Your task to perform on an android device: Go to CNN.com Image 0: 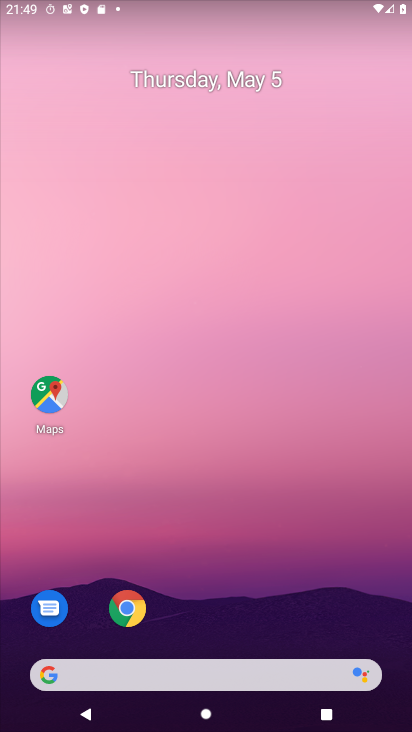
Step 0: drag from (170, 684) to (143, 89)
Your task to perform on an android device: Go to CNN.com Image 1: 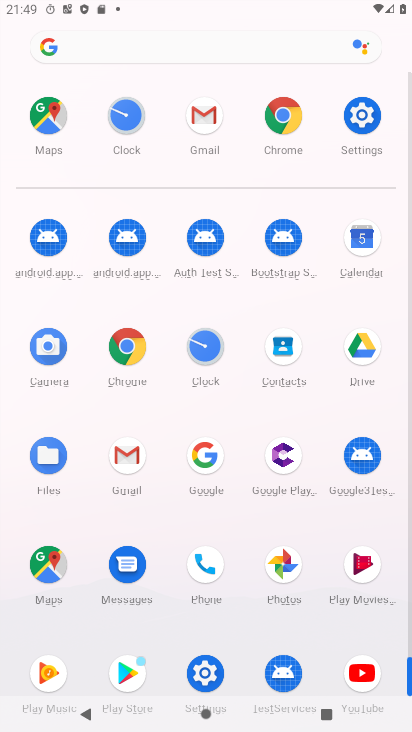
Step 1: click (136, 353)
Your task to perform on an android device: Go to CNN.com Image 2: 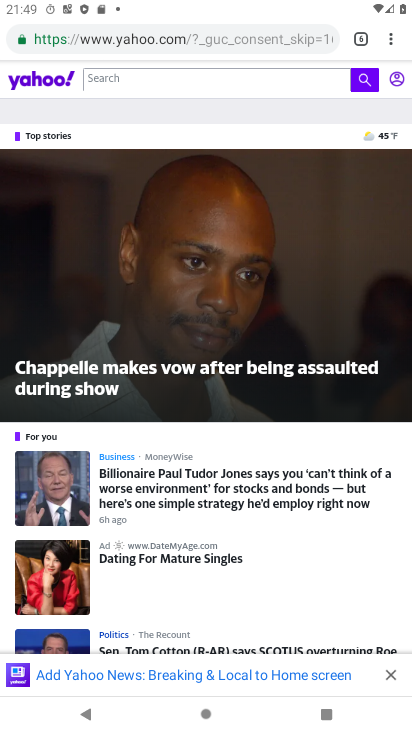
Step 2: click (230, 34)
Your task to perform on an android device: Go to CNN.com Image 3: 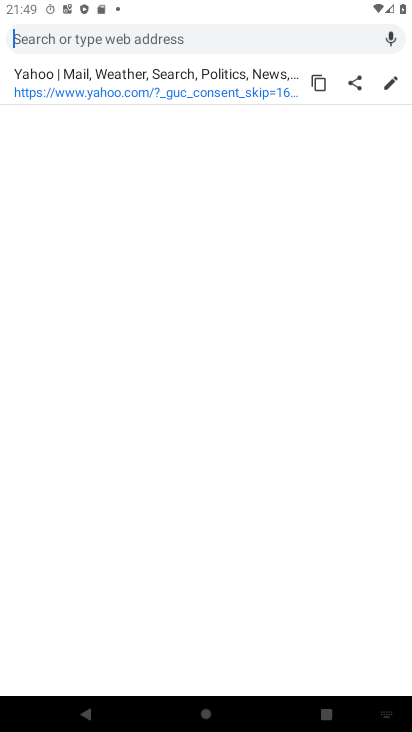
Step 3: type "cnn.com"
Your task to perform on an android device: Go to CNN.com Image 4: 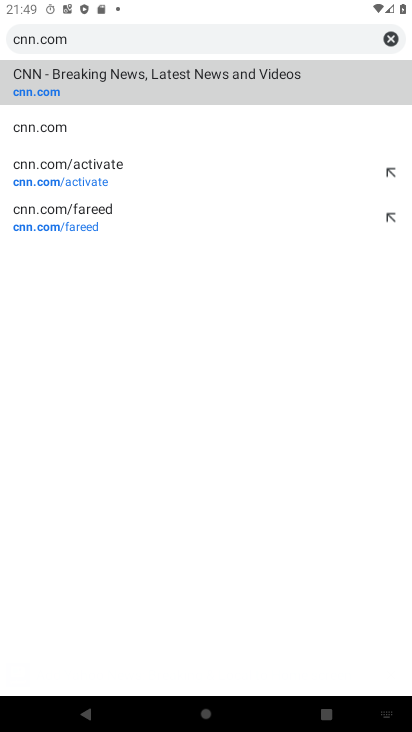
Step 4: click (127, 87)
Your task to perform on an android device: Go to CNN.com Image 5: 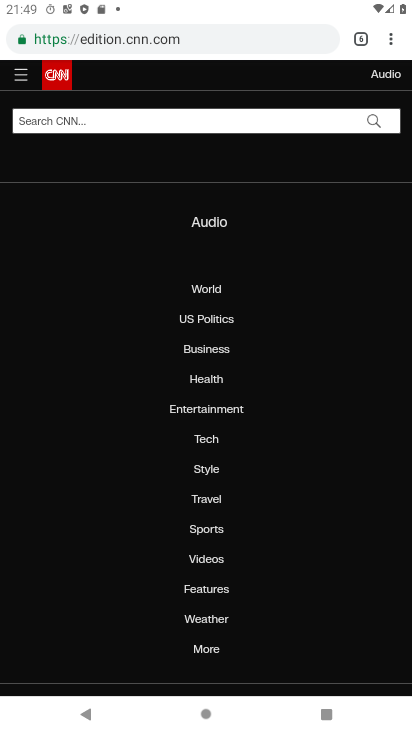
Step 5: task complete